Your task to perform on an android device: What's on my calendar tomorrow? Image 0: 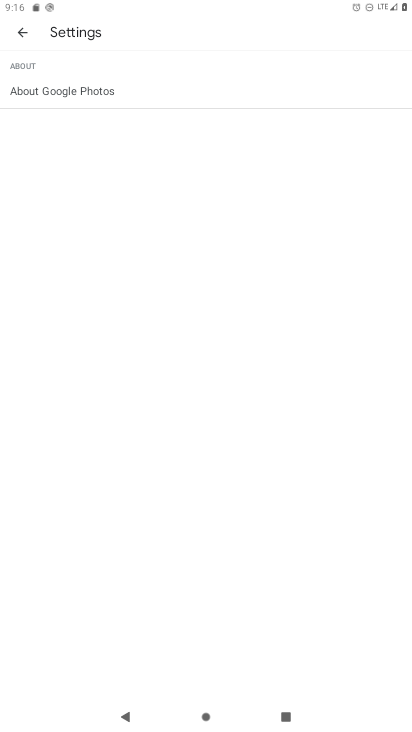
Step 0: press home button
Your task to perform on an android device: What's on my calendar tomorrow? Image 1: 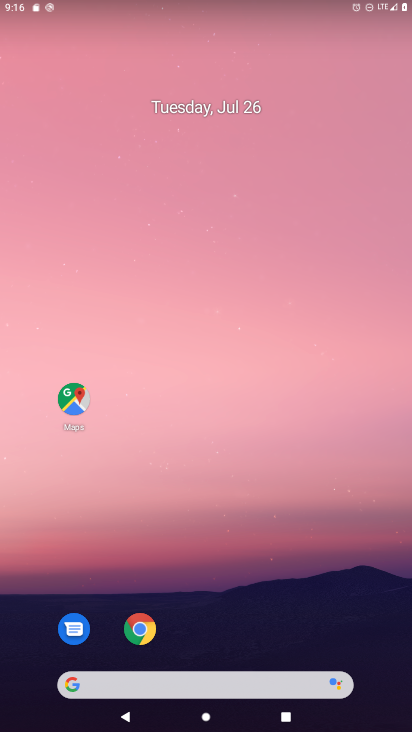
Step 1: drag from (220, 670) to (183, 108)
Your task to perform on an android device: What's on my calendar tomorrow? Image 2: 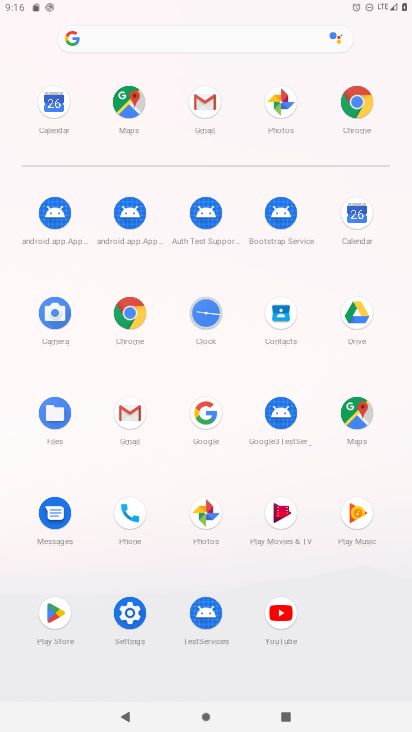
Step 2: click (359, 219)
Your task to perform on an android device: What's on my calendar tomorrow? Image 3: 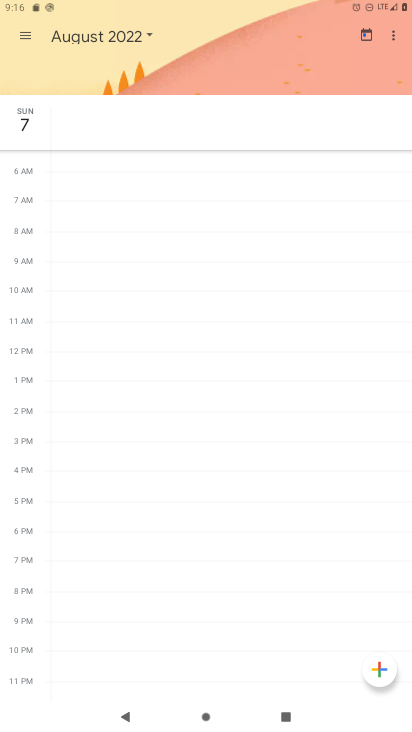
Step 3: click (24, 36)
Your task to perform on an android device: What's on my calendar tomorrow? Image 4: 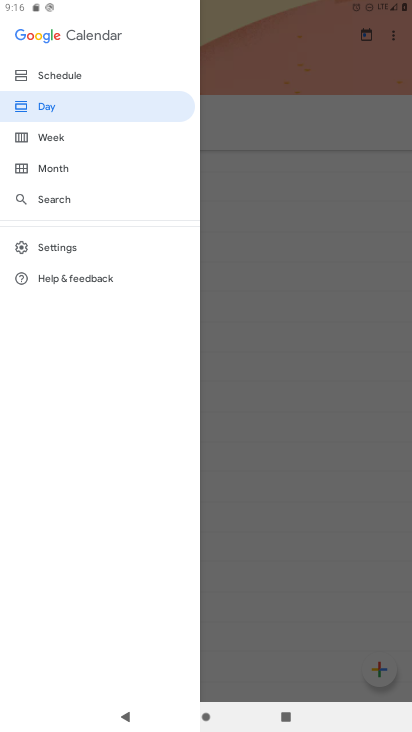
Step 4: click (59, 135)
Your task to perform on an android device: What's on my calendar tomorrow? Image 5: 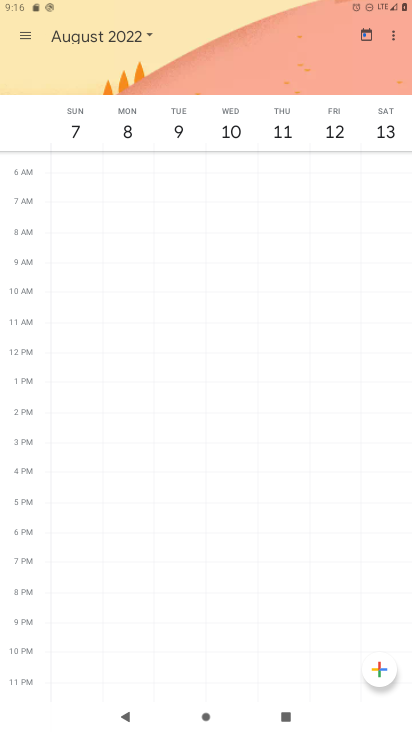
Step 5: click (365, 31)
Your task to perform on an android device: What's on my calendar tomorrow? Image 6: 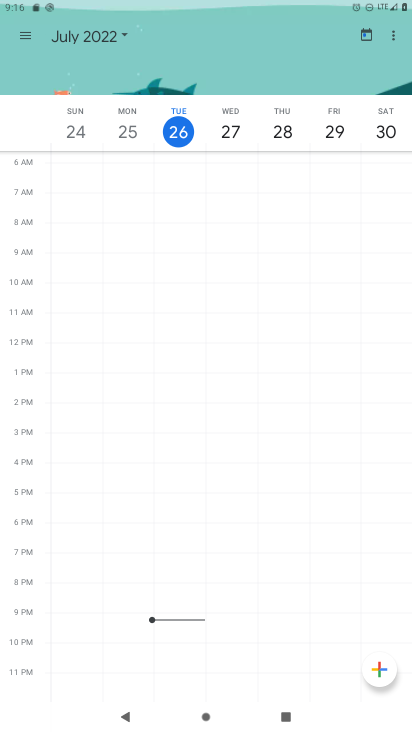
Step 6: click (228, 124)
Your task to perform on an android device: What's on my calendar tomorrow? Image 7: 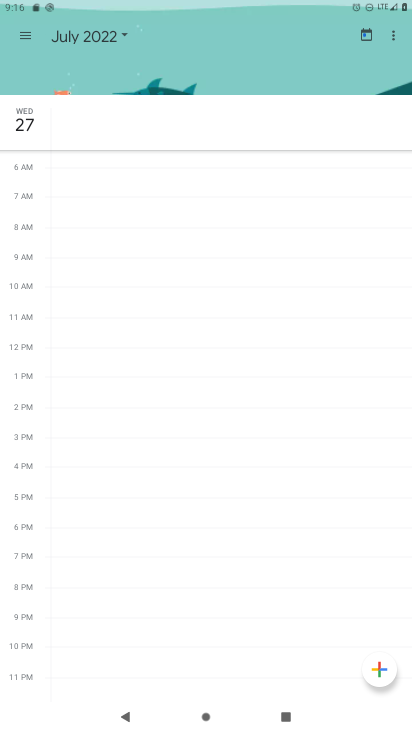
Step 7: task complete